Your task to perform on an android device: Turn on the flashlight Image 0: 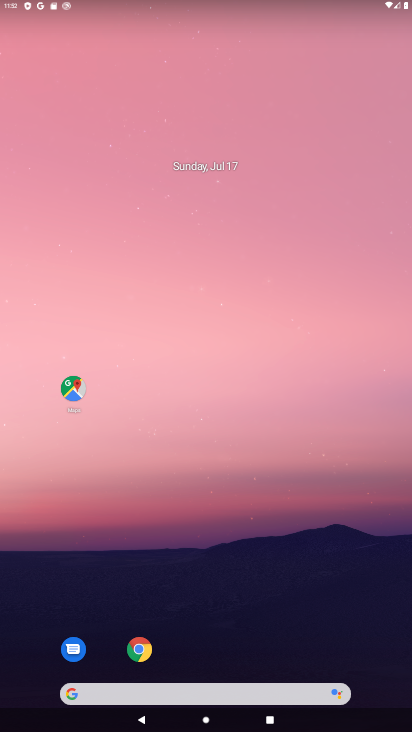
Step 0: drag from (184, 627) to (179, 181)
Your task to perform on an android device: Turn on the flashlight Image 1: 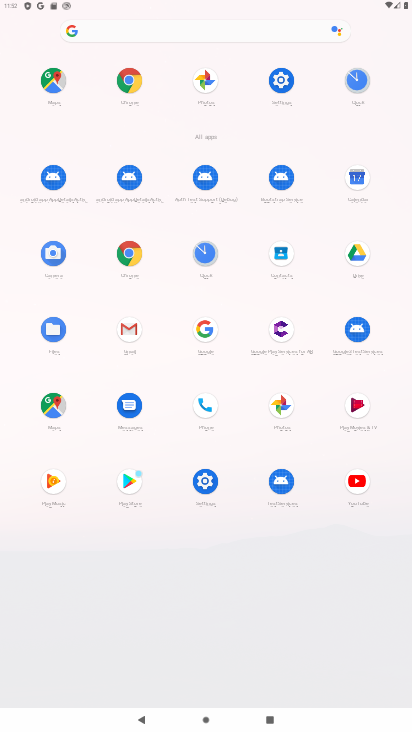
Step 1: click (283, 88)
Your task to perform on an android device: Turn on the flashlight Image 2: 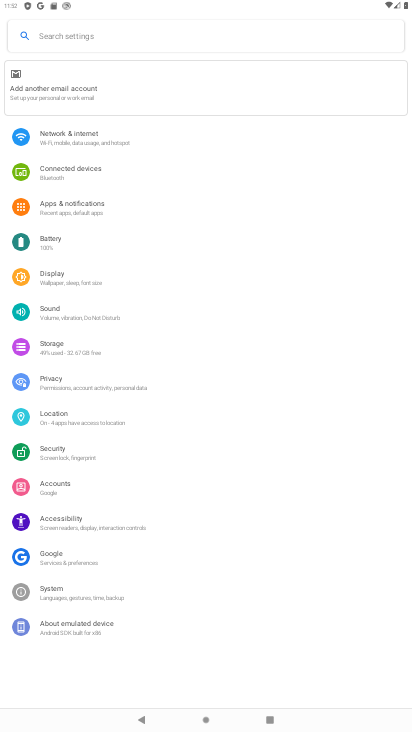
Step 2: task complete